Your task to perform on an android device: turn notification dots off Image 0: 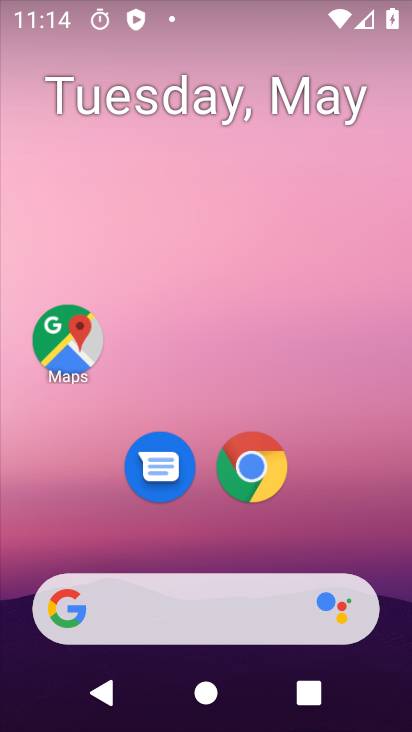
Step 0: drag from (340, 473) to (236, 34)
Your task to perform on an android device: turn notification dots off Image 1: 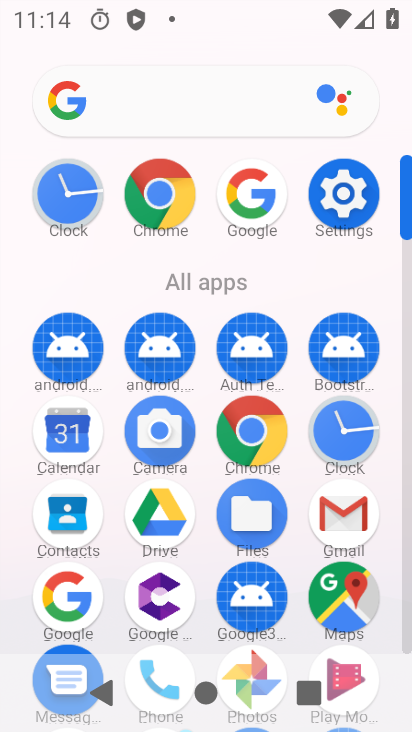
Step 1: click (344, 189)
Your task to perform on an android device: turn notification dots off Image 2: 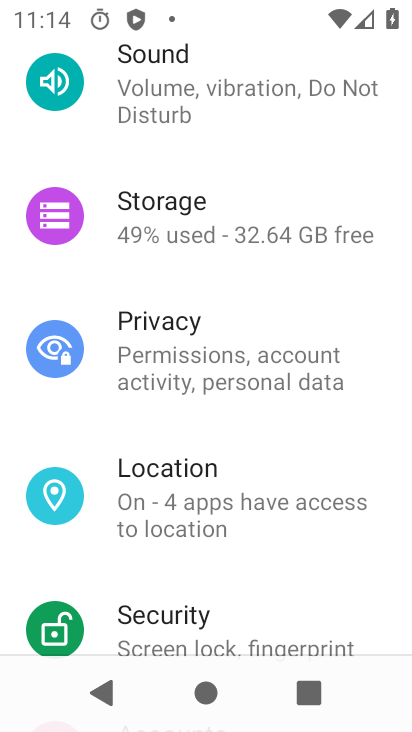
Step 2: drag from (249, 293) to (246, 630)
Your task to perform on an android device: turn notification dots off Image 3: 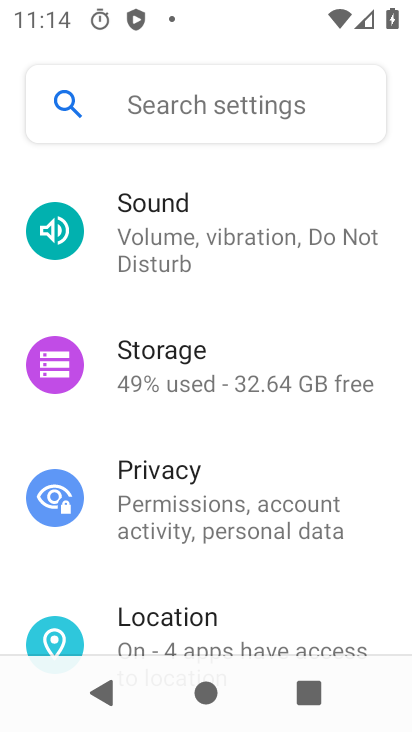
Step 3: drag from (256, 240) to (256, 572)
Your task to perform on an android device: turn notification dots off Image 4: 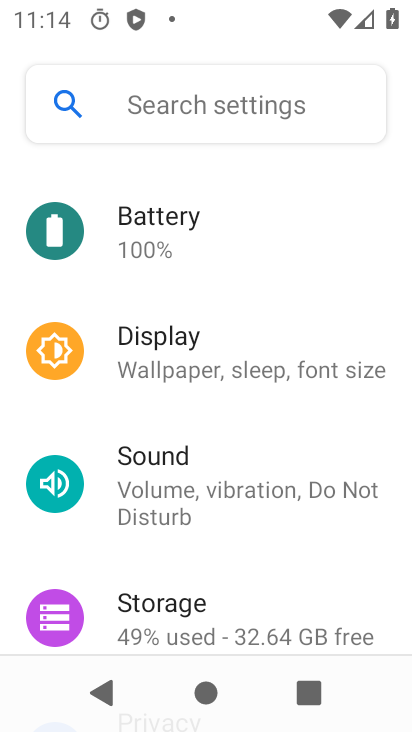
Step 4: drag from (288, 265) to (288, 560)
Your task to perform on an android device: turn notification dots off Image 5: 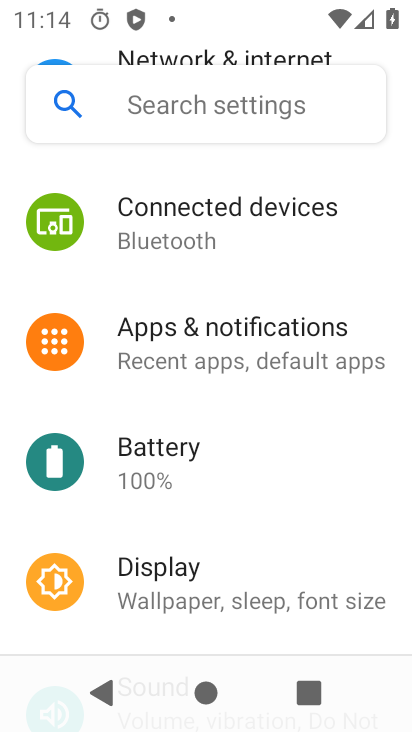
Step 5: click (244, 319)
Your task to perform on an android device: turn notification dots off Image 6: 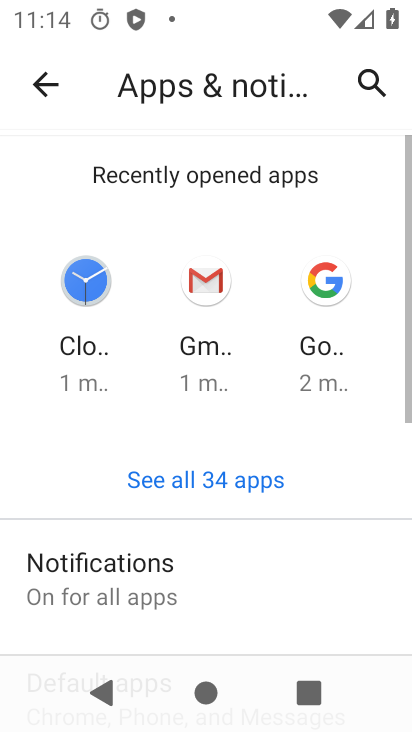
Step 6: drag from (281, 463) to (252, 201)
Your task to perform on an android device: turn notification dots off Image 7: 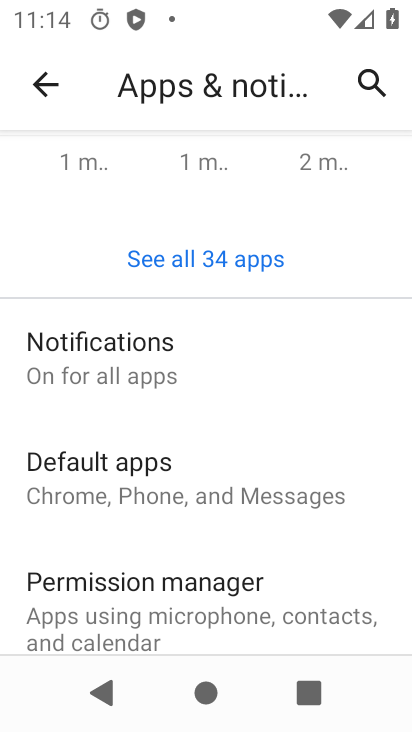
Step 7: click (181, 363)
Your task to perform on an android device: turn notification dots off Image 8: 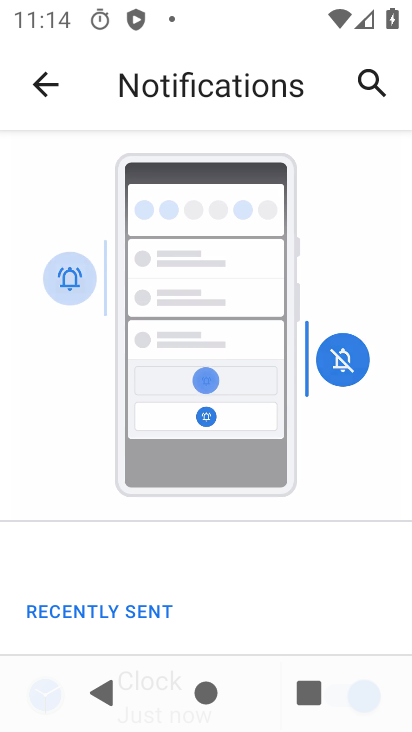
Step 8: drag from (217, 513) to (229, 153)
Your task to perform on an android device: turn notification dots off Image 9: 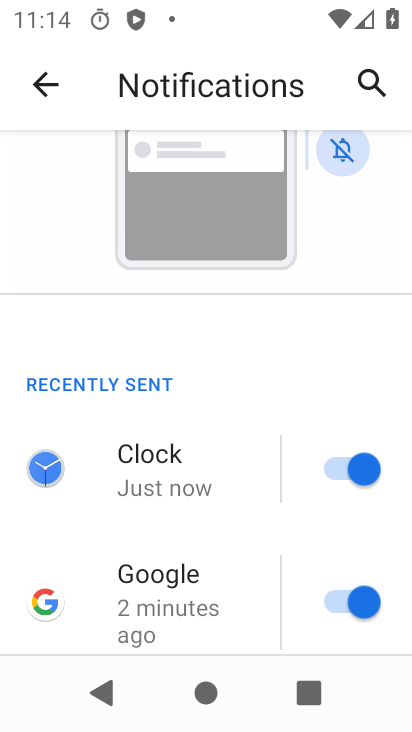
Step 9: drag from (235, 570) to (216, 217)
Your task to perform on an android device: turn notification dots off Image 10: 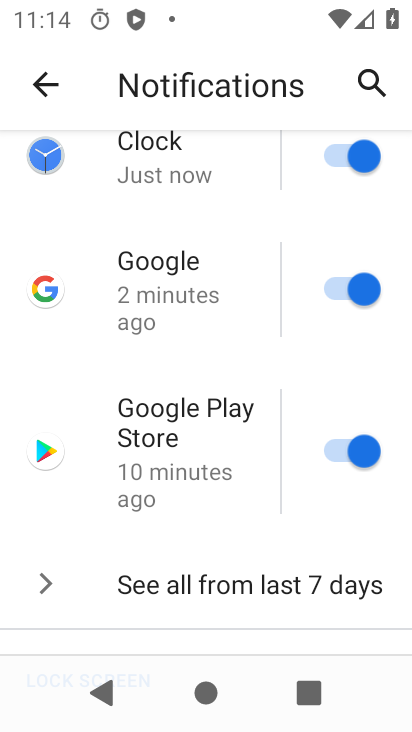
Step 10: drag from (222, 638) to (223, 229)
Your task to perform on an android device: turn notification dots off Image 11: 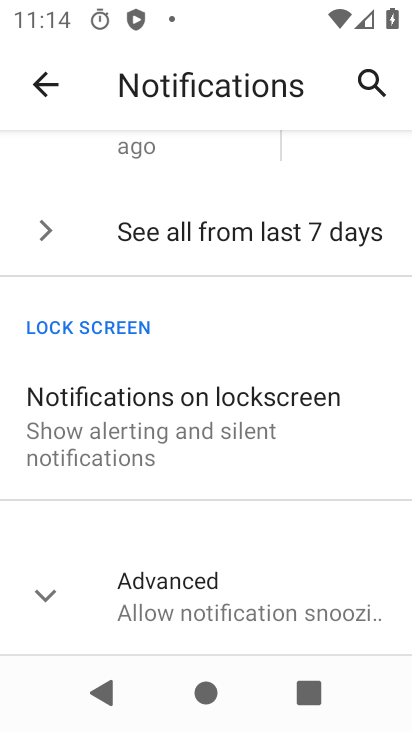
Step 11: drag from (178, 575) to (171, 278)
Your task to perform on an android device: turn notification dots off Image 12: 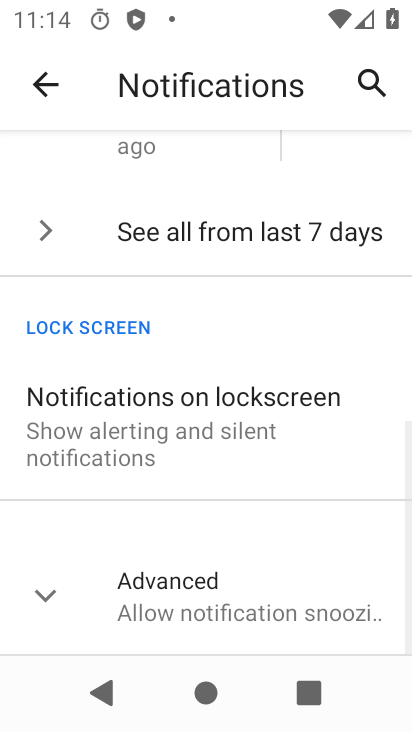
Step 12: click (51, 594)
Your task to perform on an android device: turn notification dots off Image 13: 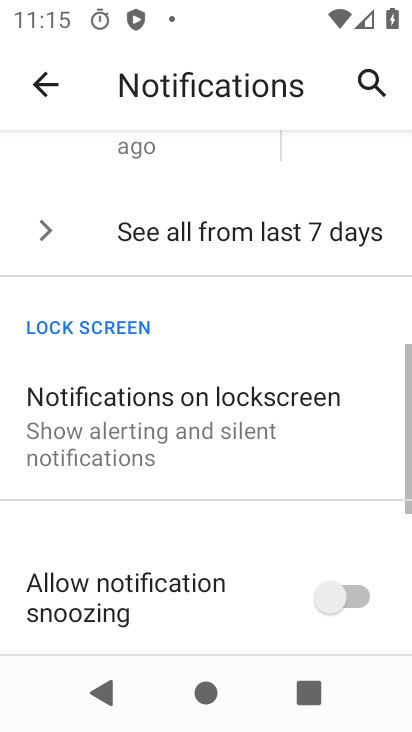
Step 13: drag from (189, 584) to (193, 232)
Your task to perform on an android device: turn notification dots off Image 14: 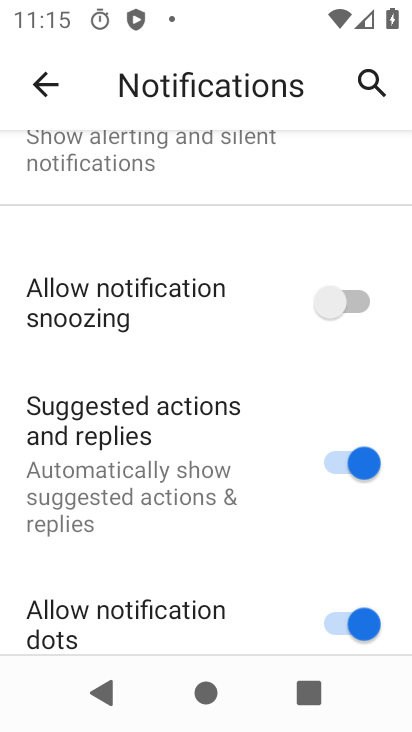
Step 14: drag from (186, 604) to (213, 219)
Your task to perform on an android device: turn notification dots off Image 15: 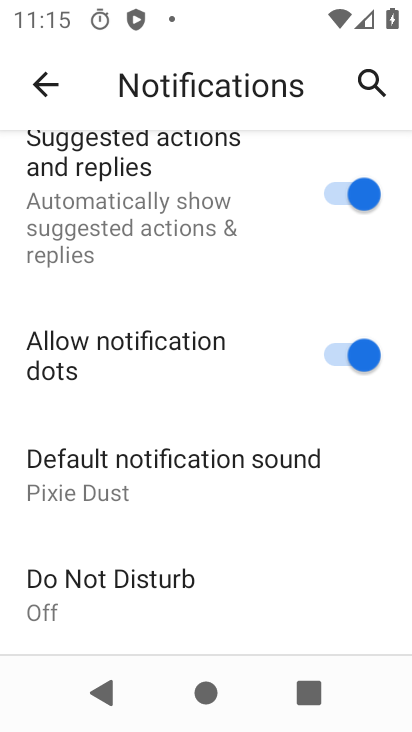
Step 15: click (338, 361)
Your task to perform on an android device: turn notification dots off Image 16: 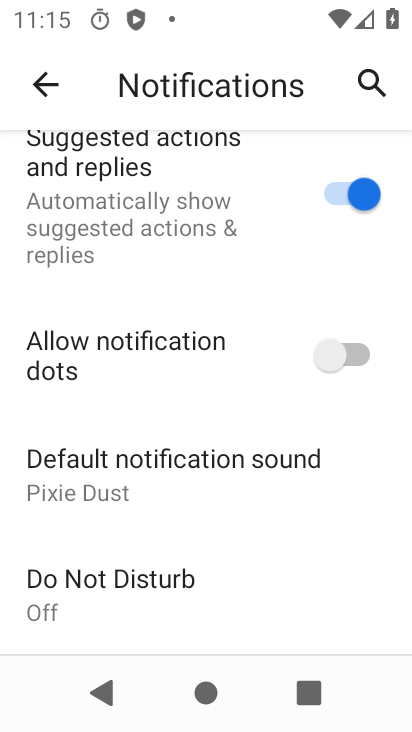
Step 16: task complete